Your task to perform on an android device: search for starred emails in the gmail app Image 0: 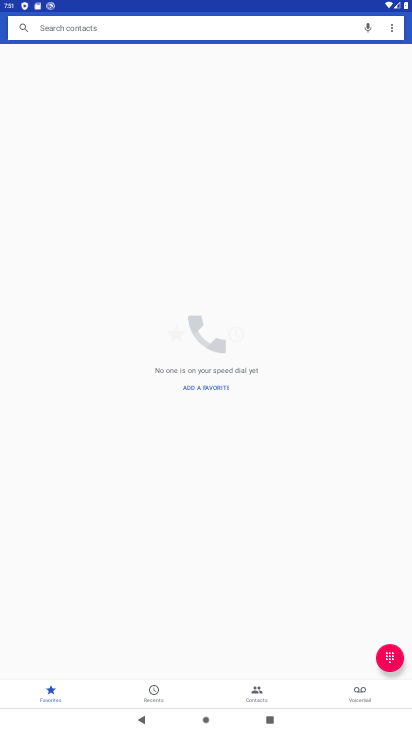
Step 0: press home button
Your task to perform on an android device: search for starred emails in the gmail app Image 1: 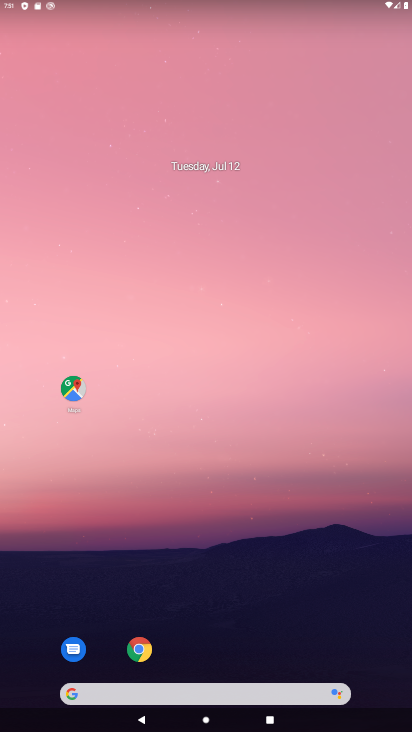
Step 1: drag from (287, 622) to (293, 114)
Your task to perform on an android device: search for starred emails in the gmail app Image 2: 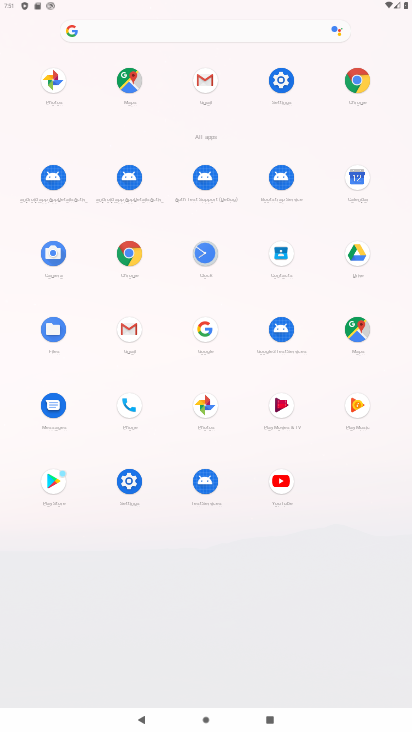
Step 2: click (202, 80)
Your task to perform on an android device: search for starred emails in the gmail app Image 3: 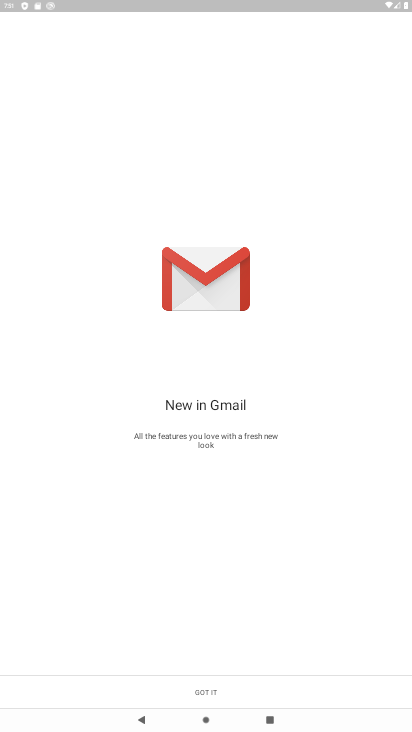
Step 3: click (212, 697)
Your task to perform on an android device: search for starred emails in the gmail app Image 4: 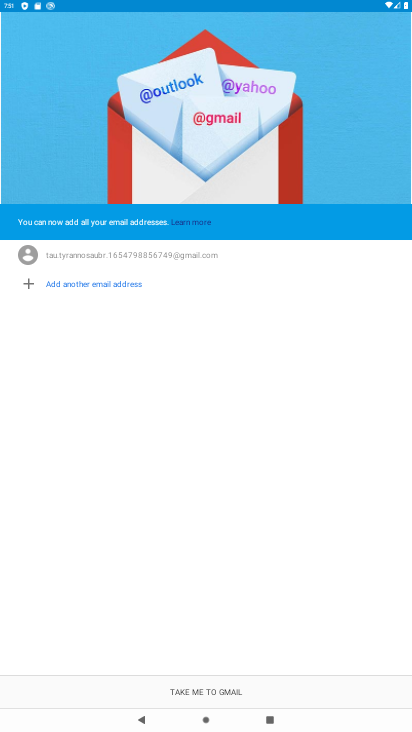
Step 4: click (212, 697)
Your task to perform on an android device: search for starred emails in the gmail app Image 5: 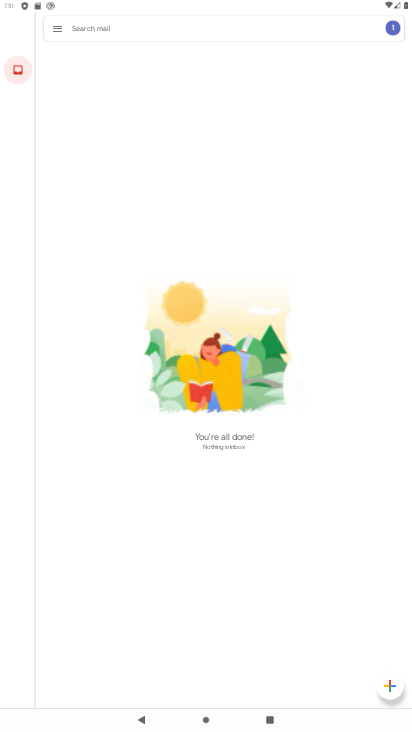
Step 5: click (60, 24)
Your task to perform on an android device: search for starred emails in the gmail app Image 6: 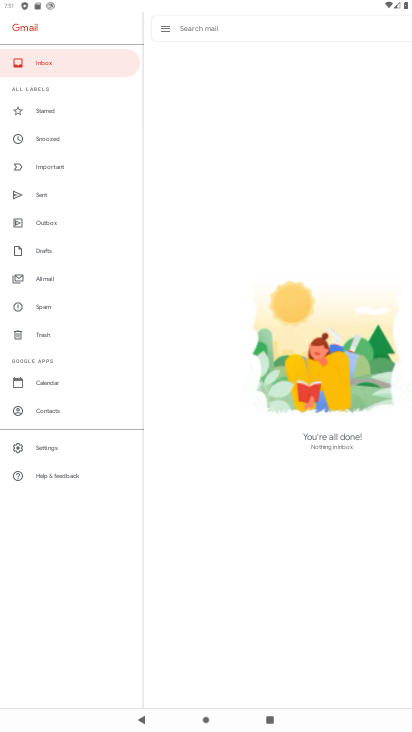
Step 6: click (50, 108)
Your task to perform on an android device: search for starred emails in the gmail app Image 7: 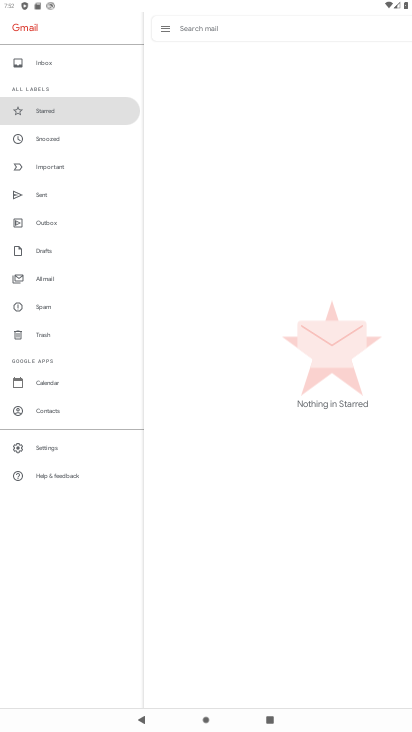
Step 7: task complete